Your task to perform on an android device: Clear the cart on amazon.com. Add alienware area 51 to the cart on amazon.com Image 0: 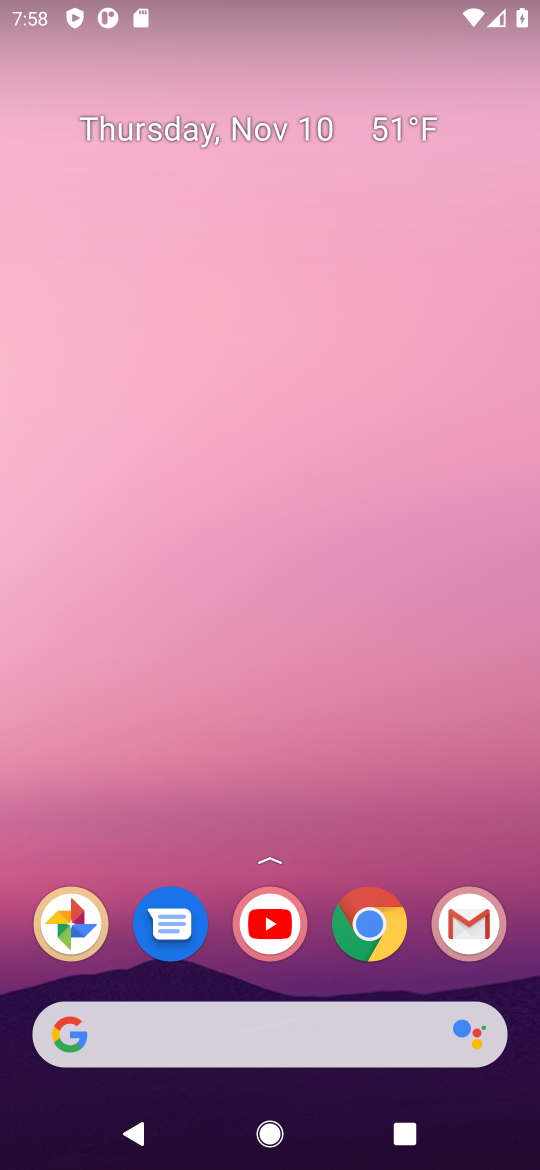
Step 0: click (391, 913)
Your task to perform on an android device: Clear the cart on amazon.com. Add alienware area 51 to the cart on amazon.com Image 1: 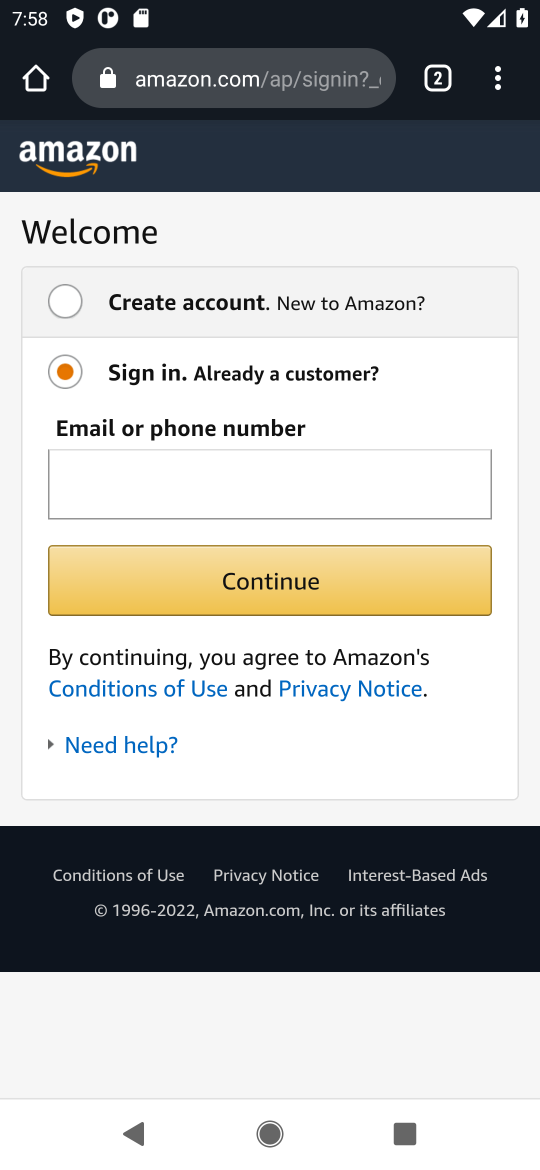
Step 1: press back button
Your task to perform on an android device: Clear the cart on amazon.com. Add alienware area 51 to the cart on amazon.com Image 2: 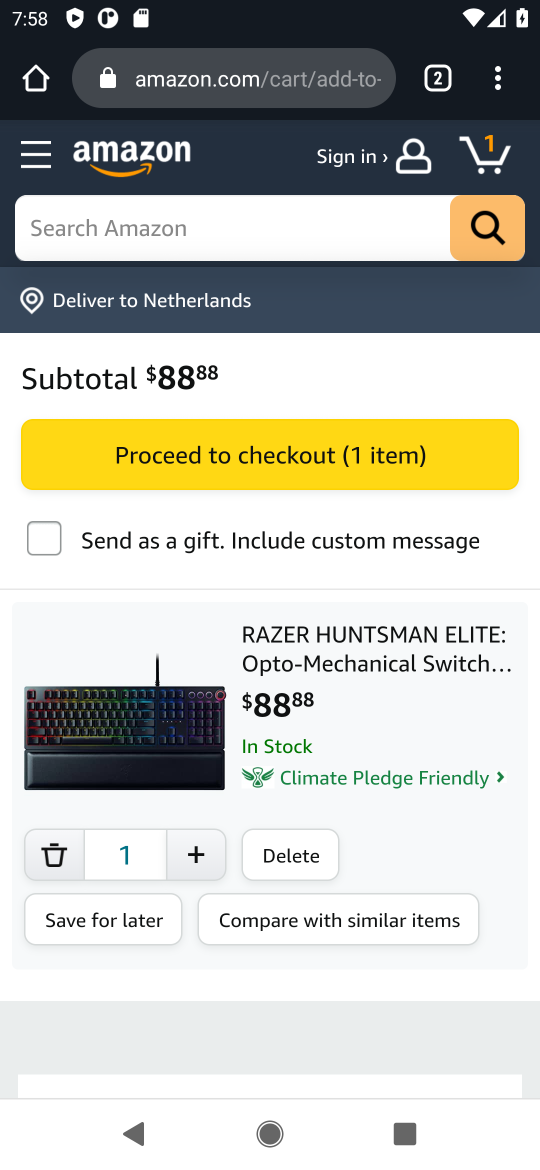
Step 2: click (62, 857)
Your task to perform on an android device: Clear the cart on amazon.com. Add alienware area 51 to the cart on amazon.com Image 3: 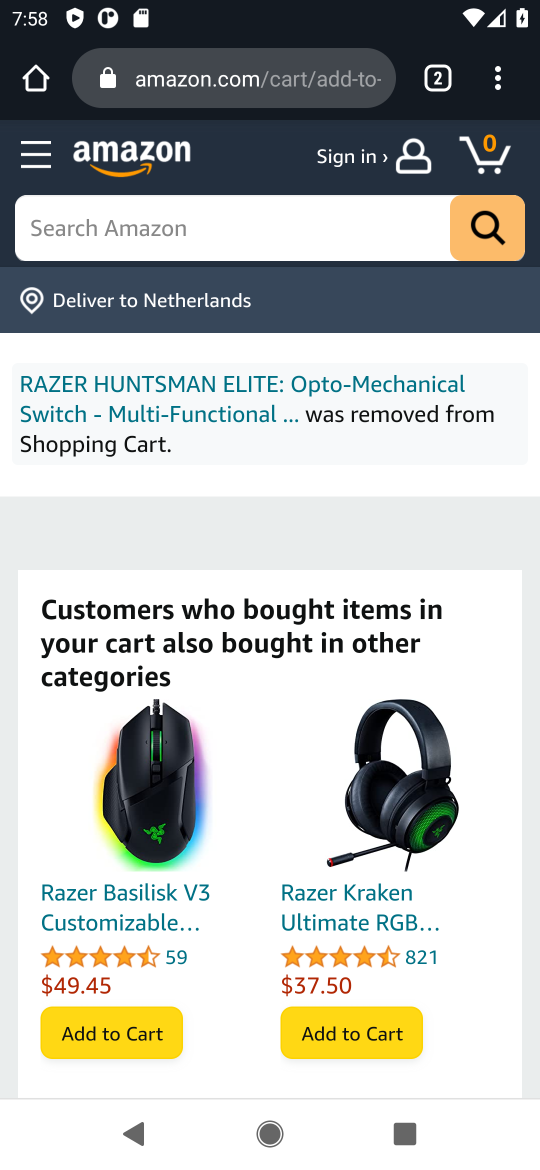
Step 3: click (239, 237)
Your task to perform on an android device: Clear the cart on amazon.com. Add alienware area 51 to the cart on amazon.com Image 4: 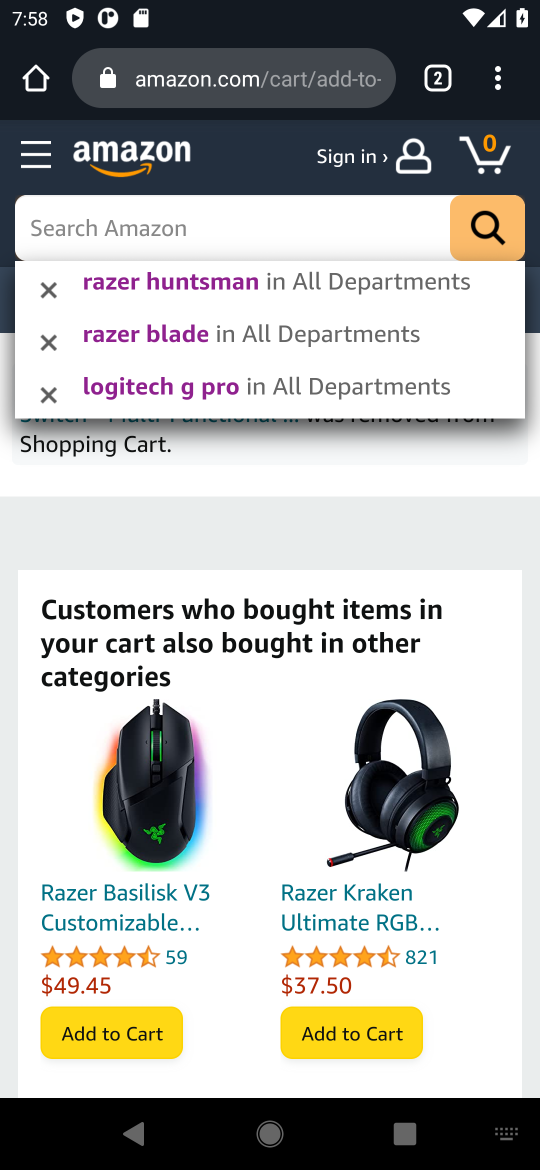
Step 4: type "alienware area 51 "
Your task to perform on an android device: Clear the cart on amazon.com. Add alienware area 51 to the cart on amazon.com Image 5: 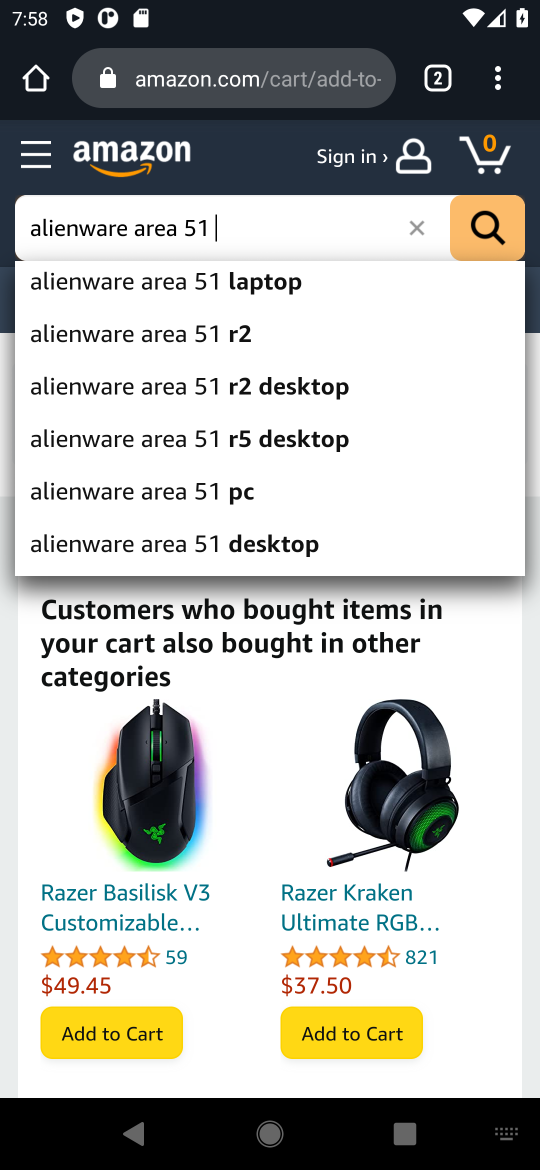
Step 5: click (486, 226)
Your task to perform on an android device: Clear the cart on amazon.com. Add alienware area 51 to the cart on amazon.com Image 6: 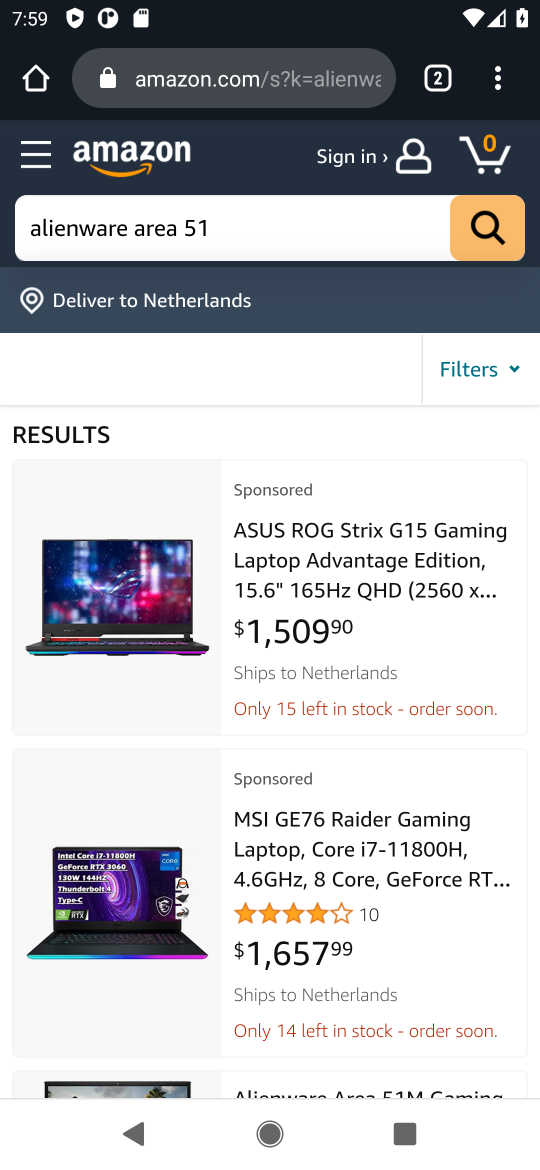
Step 6: drag from (169, 859) to (177, 532)
Your task to perform on an android device: Clear the cart on amazon.com. Add alienware area 51 to the cart on amazon.com Image 7: 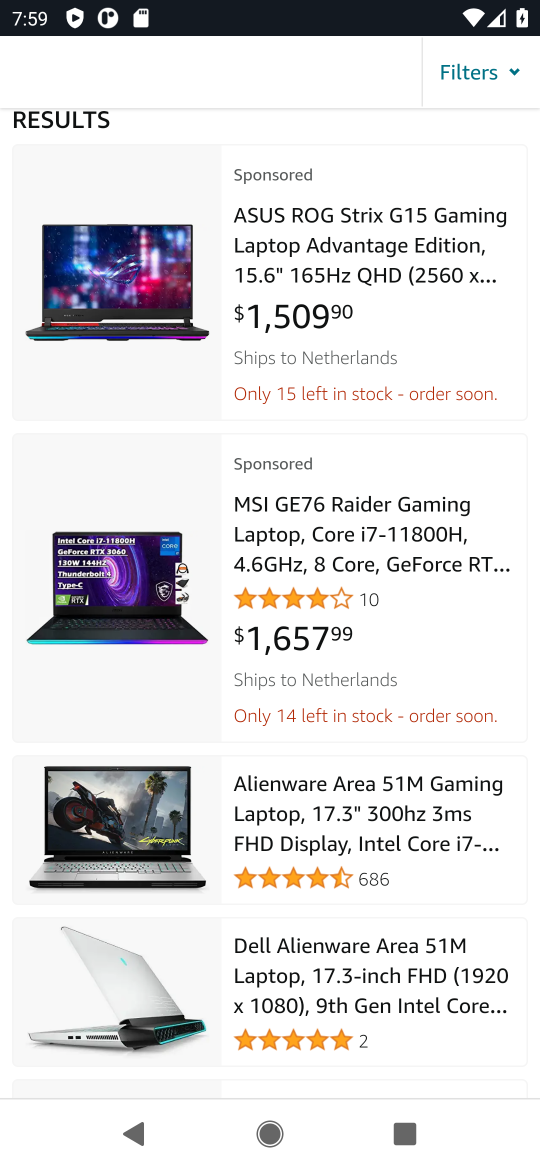
Step 7: drag from (152, 911) to (149, 754)
Your task to perform on an android device: Clear the cart on amazon.com. Add alienware area 51 to the cart on amazon.com Image 8: 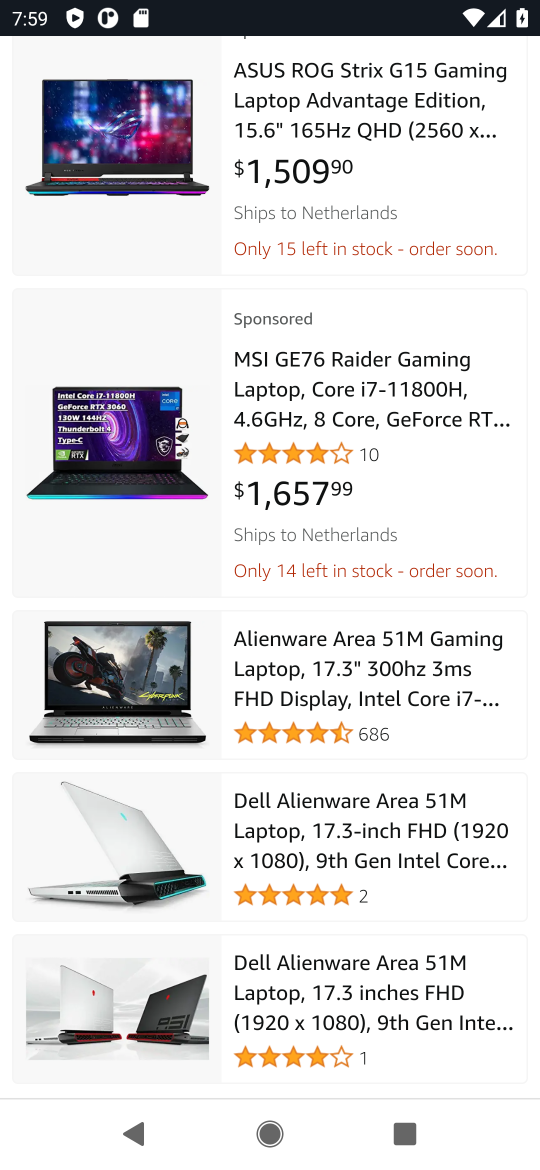
Step 8: drag from (176, 946) to (168, 771)
Your task to perform on an android device: Clear the cart on amazon.com. Add alienware area 51 to the cart on amazon.com Image 9: 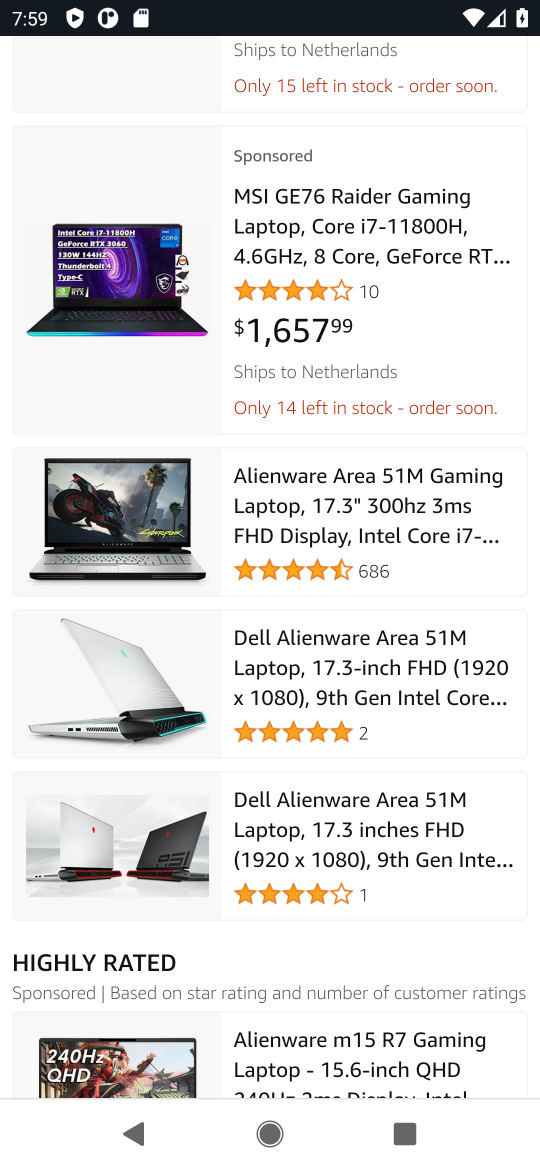
Step 9: drag from (207, 936) to (191, 833)
Your task to perform on an android device: Clear the cart on amazon.com. Add alienware area 51 to the cart on amazon.com Image 10: 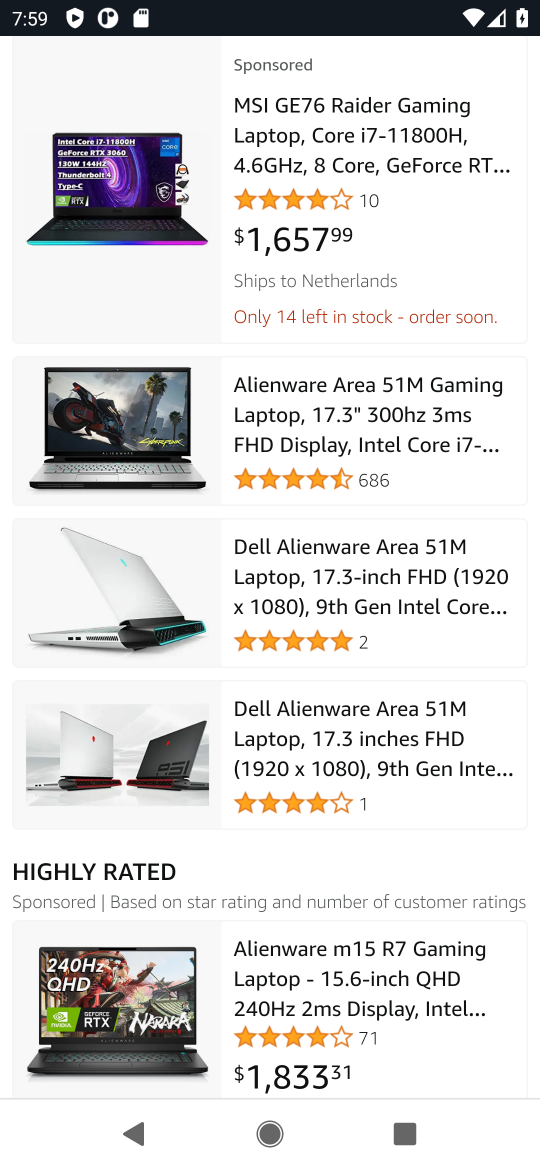
Step 10: click (132, 425)
Your task to perform on an android device: Clear the cart on amazon.com. Add alienware area 51 to the cart on amazon.com Image 11: 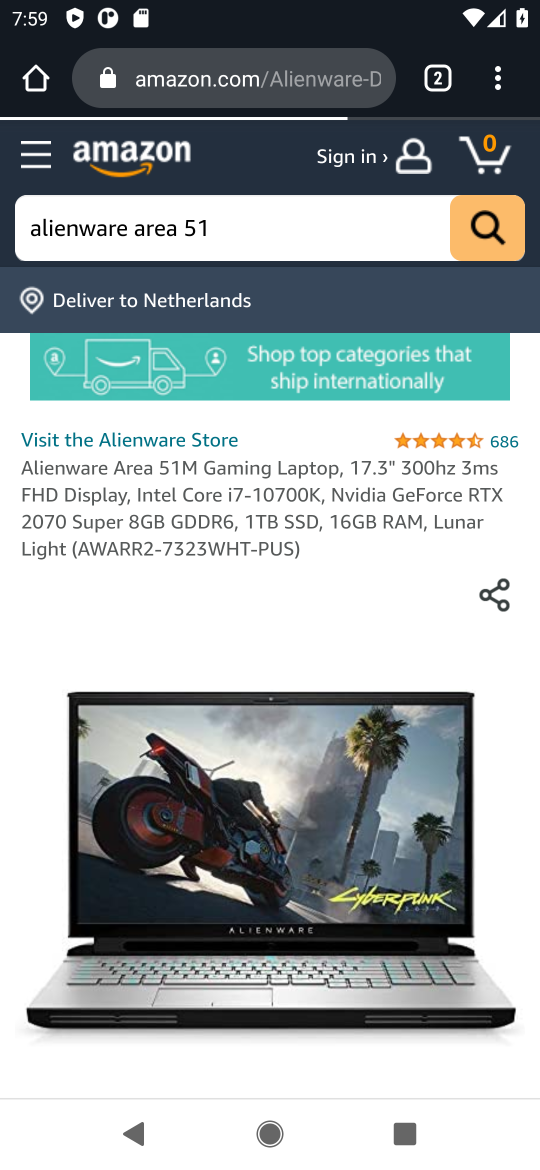
Step 11: drag from (252, 737) to (222, 253)
Your task to perform on an android device: Clear the cart on amazon.com. Add alienware area 51 to the cart on amazon.com Image 12: 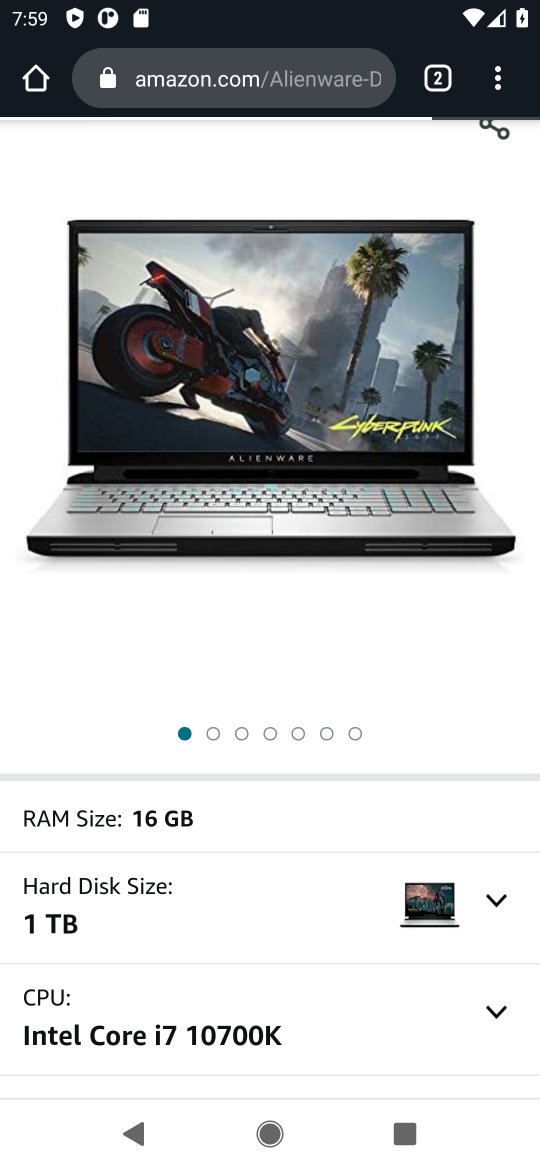
Step 12: drag from (281, 858) to (279, 439)
Your task to perform on an android device: Clear the cart on amazon.com. Add alienware area 51 to the cart on amazon.com Image 13: 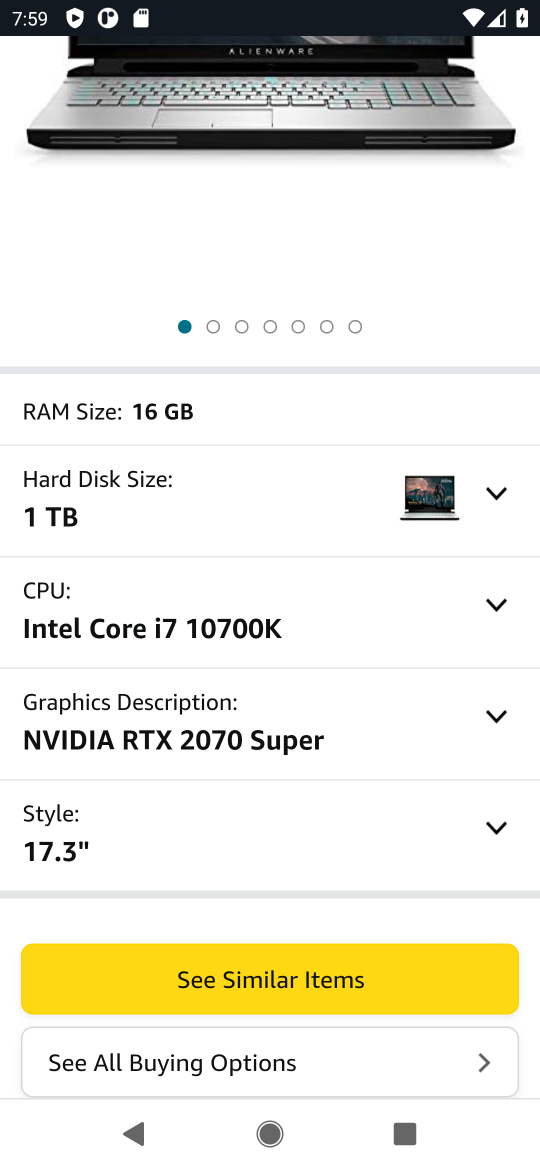
Step 13: press back button
Your task to perform on an android device: Clear the cart on amazon.com. Add alienware area 51 to the cart on amazon.com Image 14: 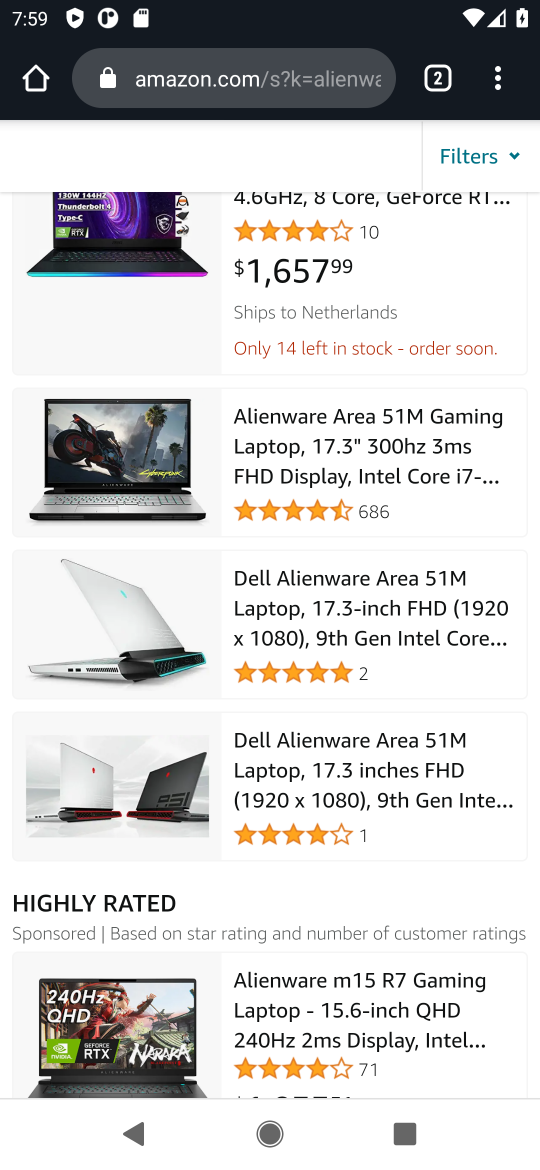
Step 14: drag from (207, 838) to (233, 370)
Your task to perform on an android device: Clear the cart on amazon.com. Add alienware area 51 to the cart on amazon.com Image 15: 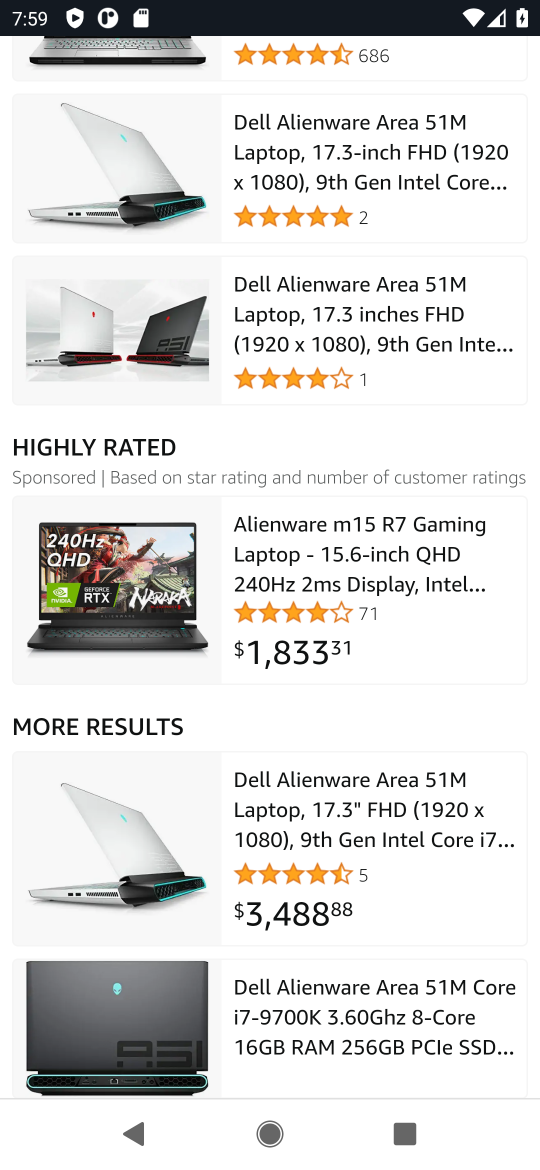
Step 15: click (150, 886)
Your task to perform on an android device: Clear the cart on amazon.com. Add alienware area 51 to the cart on amazon.com Image 16: 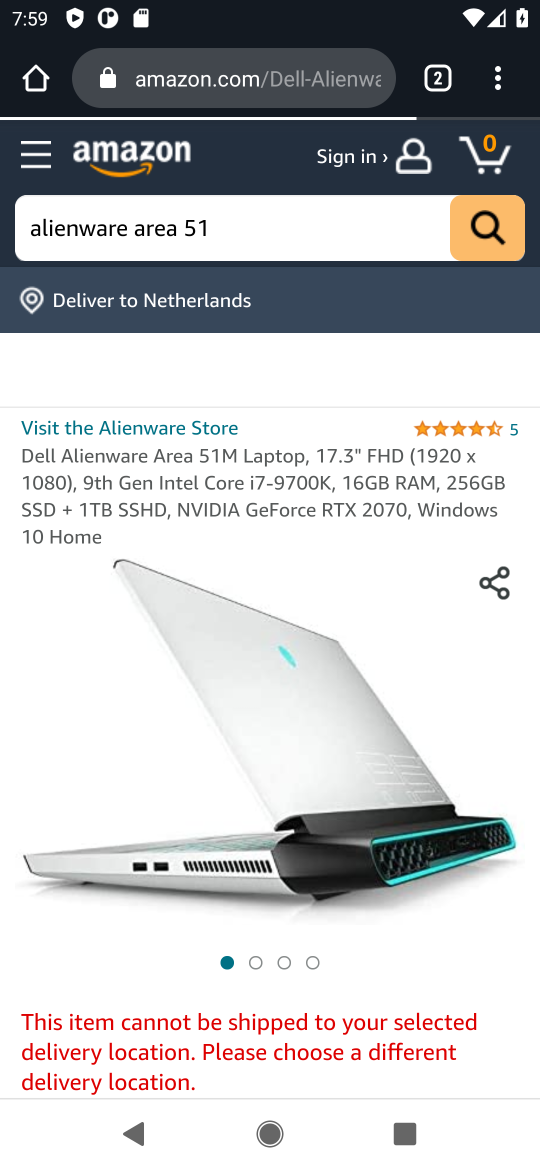
Step 16: drag from (182, 922) to (165, 438)
Your task to perform on an android device: Clear the cart on amazon.com. Add alienware area 51 to the cart on amazon.com Image 17: 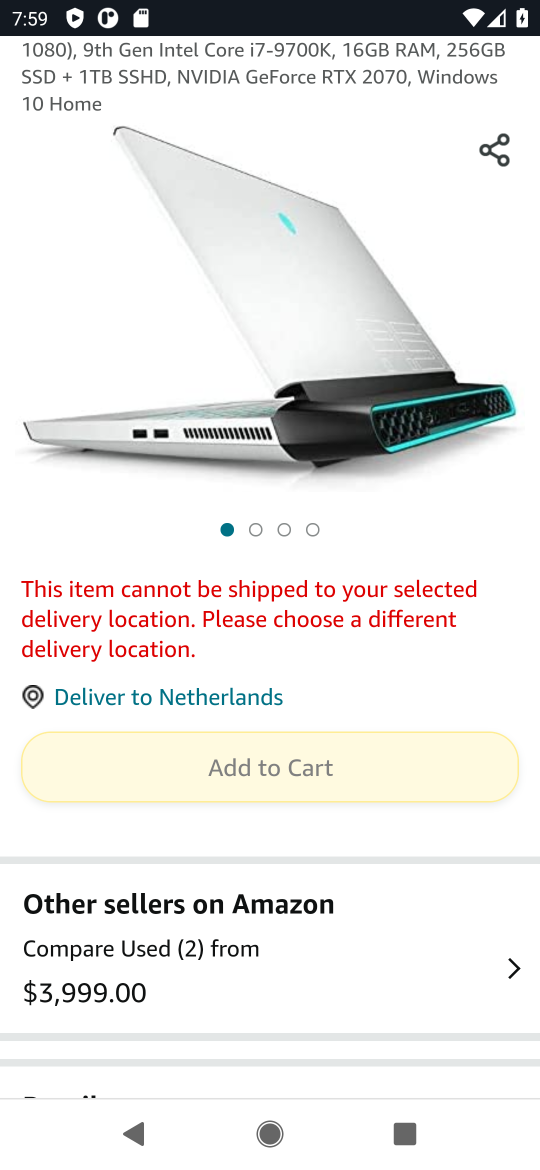
Step 17: drag from (248, 893) to (250, 656)
Your task to perform on an android device: Clear the cart on amazon.com. Add alienware area 51 to the cart on amazon.com Image 18: 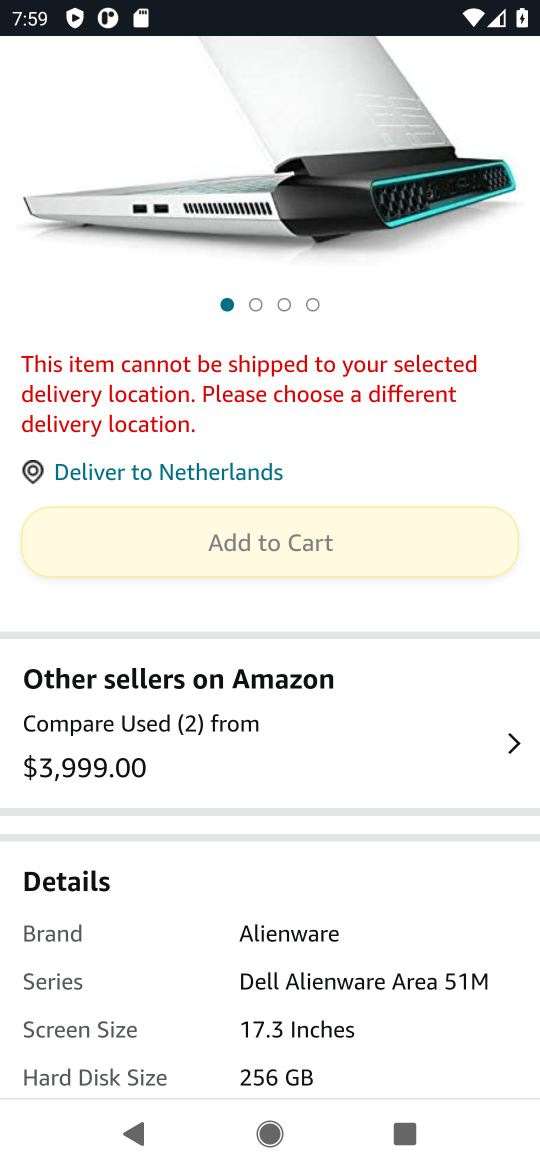
Step 18: press back button
Your task to perform on an android device: Clear the cart on amazon.com. Add alienware area 51 to the cart on amazon.com Image 19: 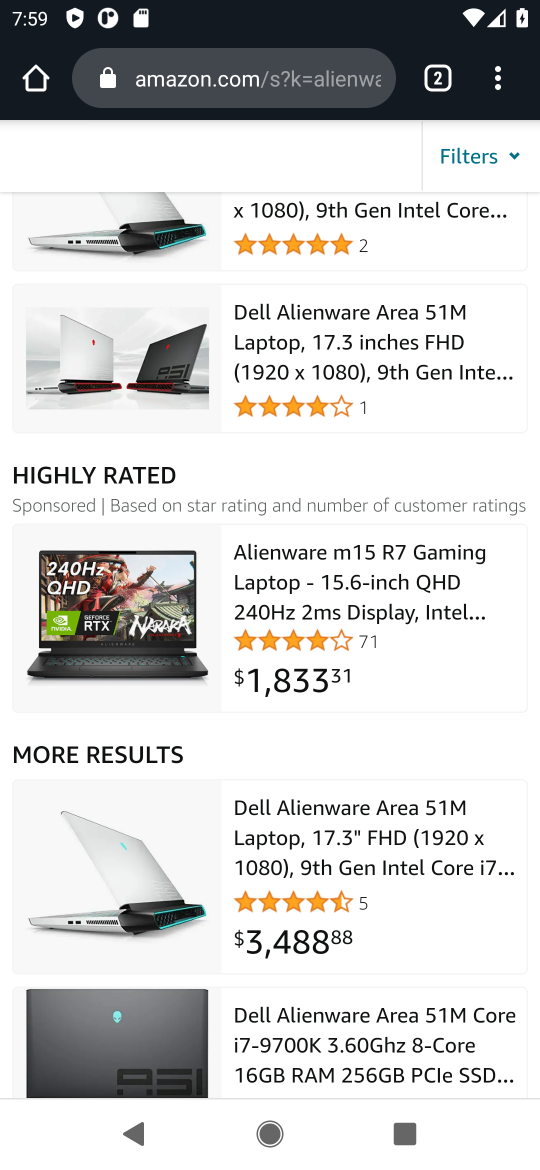
Step 19: drag from (264, 912) to (267, 623)
Your task to perform on an android device: Clear the cart on amazon.com. Add alienware area 51 to the cart on amazon.com Image 20: 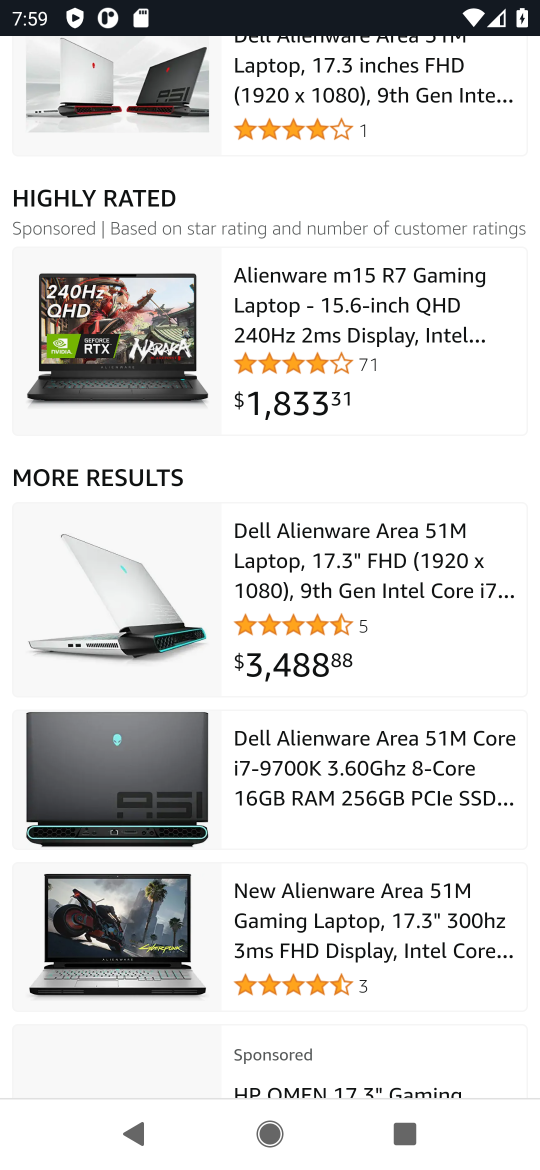
Step 20: click (100, 946)
Your task to perform on an android device: Clear the cart on amazon.com. Add alienware area 51 to the cart on amazon.com Image 21: 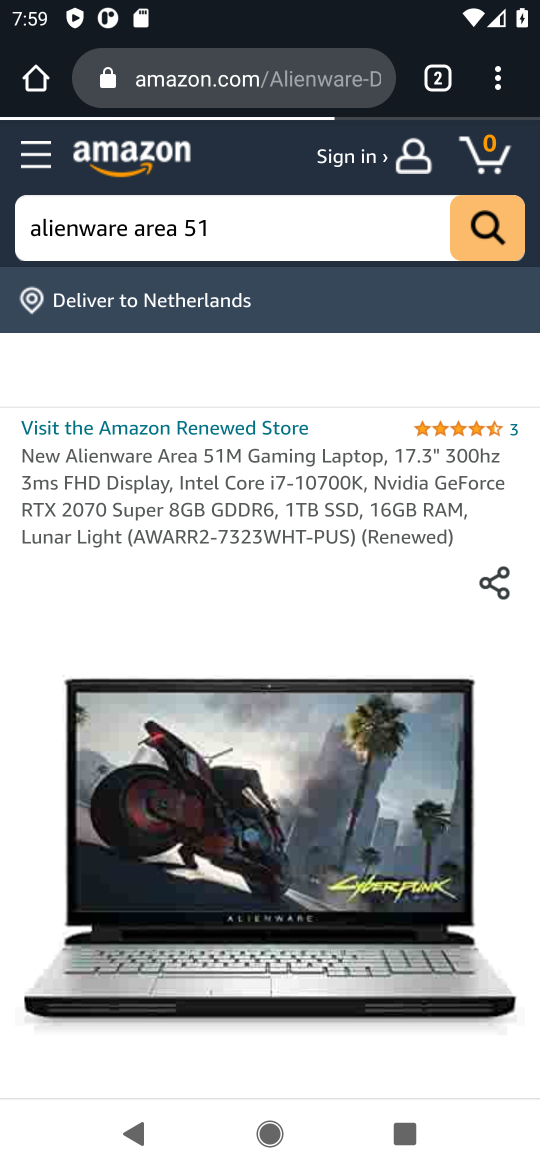
Step 21: click (185, 958)
Your task to perform on an android device: Clear the cart on amazon.com. Add alienware area 51 to the cart on amazon.com Image 22: 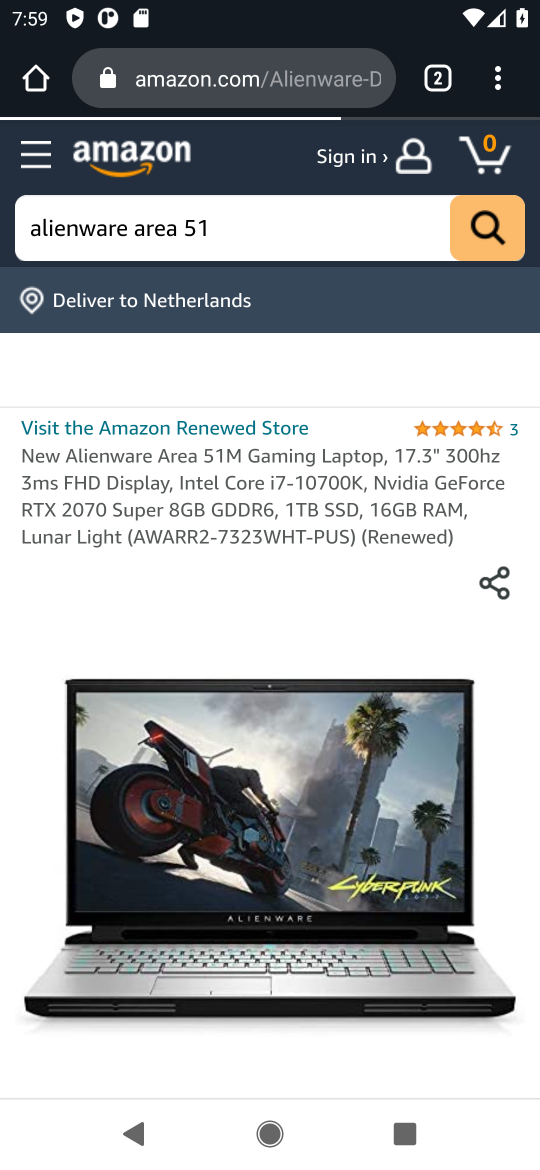
Step 22: task complete